Your task to perform on an android device: snooze an email in the gmail app Image 0: 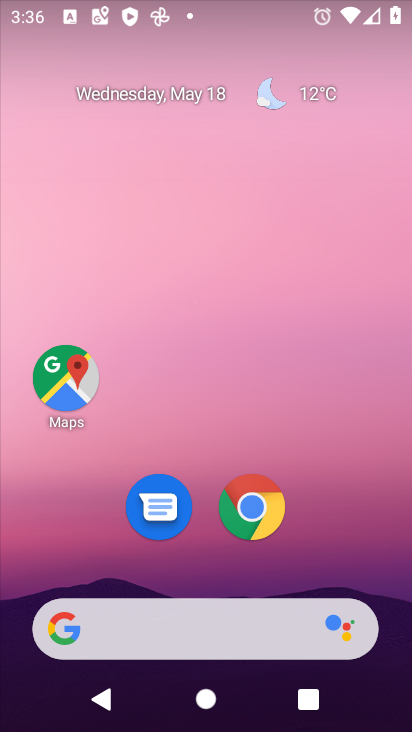
Step 0: drag from (397, 598) to (340, 185)
Your task to perform on an android device: snooze an email in the gmail app Image 1: 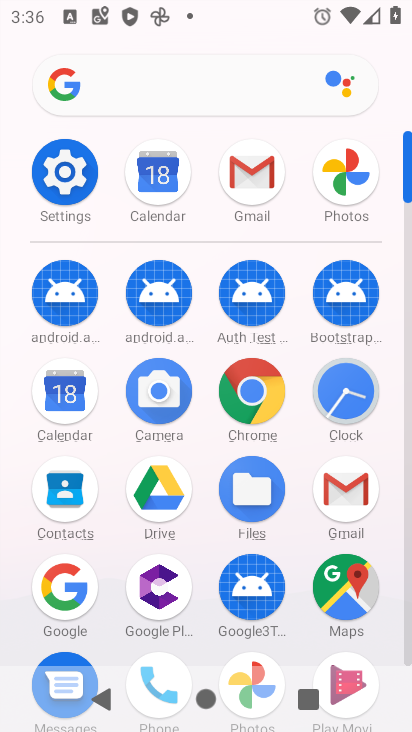
Step 1: click (407, 638)
Your task to perform on an android device: snooze an email in the gmail app Image 2: 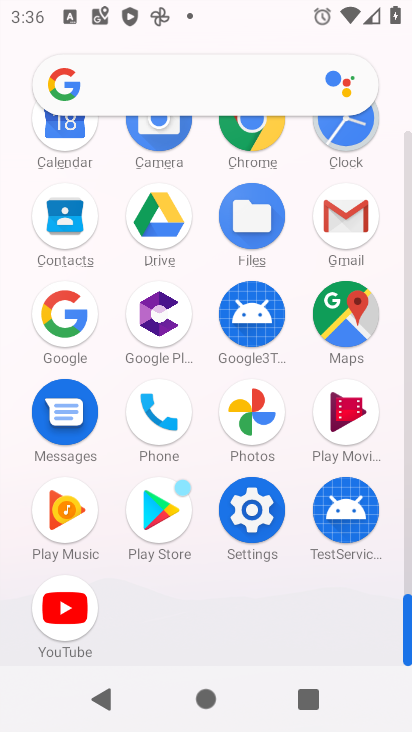
Step 2: click (340, 211)
Your task to perform on an android device: snooze an email in the gmail app Image 3: 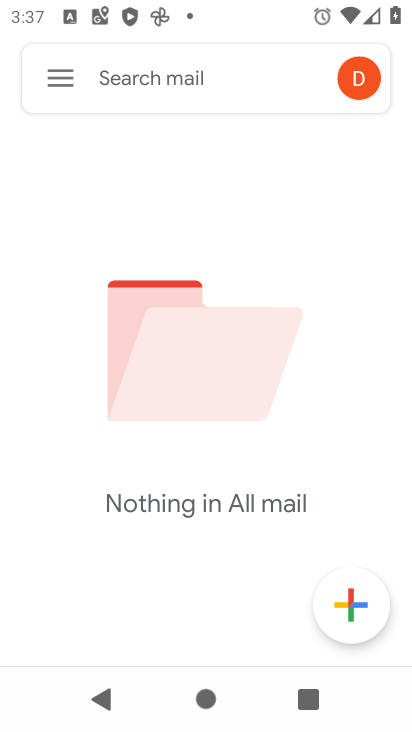
Step 3: click (60, 72)
Your task to perform on an android device: snooze an email in the gmail app Image 4: 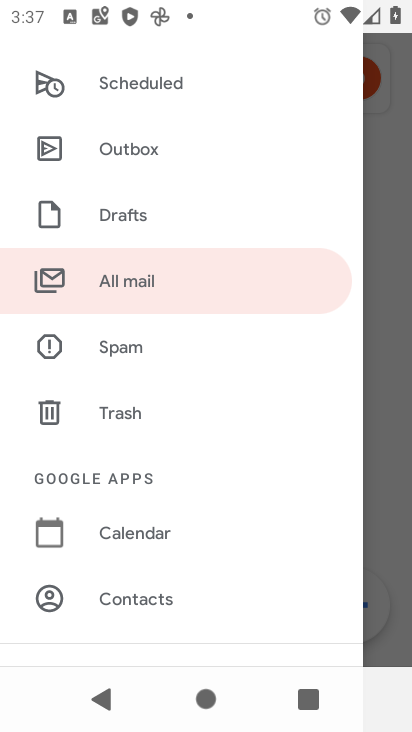
Step 4: click (135, 280)
Your task to perform on an android device: snooze an email in the gmail app Image 5: 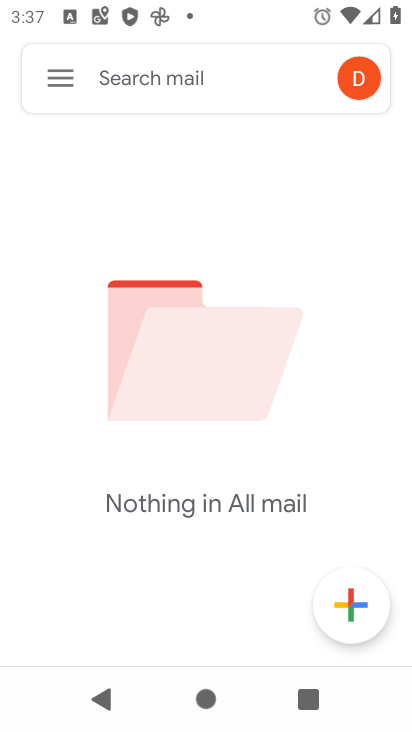
Step 5: task complete